Your task to perform on an android device: turn off notifications settings in the gmail app Image 0: 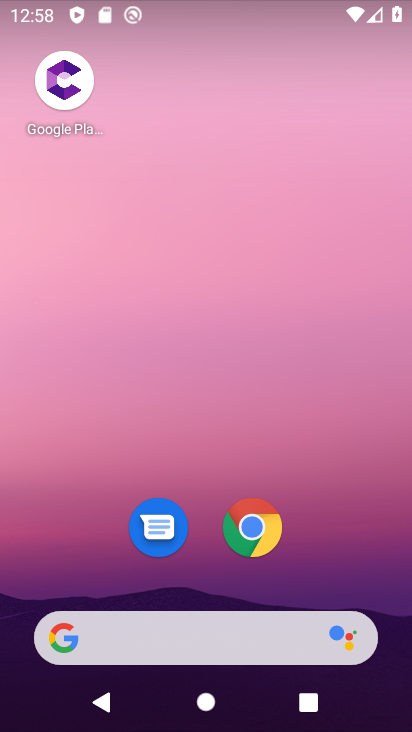
Step 0: drag from (207, 583) to (289, 68)
Your task to perform on an android device: turn off notifications settings in the gmail app Image 1: 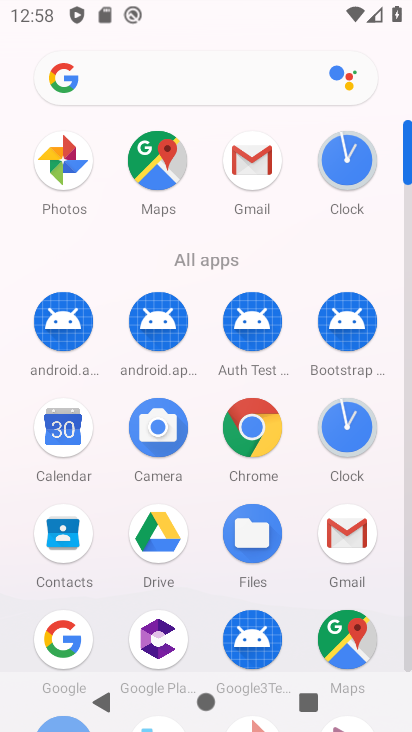
Step 1: click (342, 539)
Your task to perform on an android device: turn off notifications settings in the gmail app Image 2: 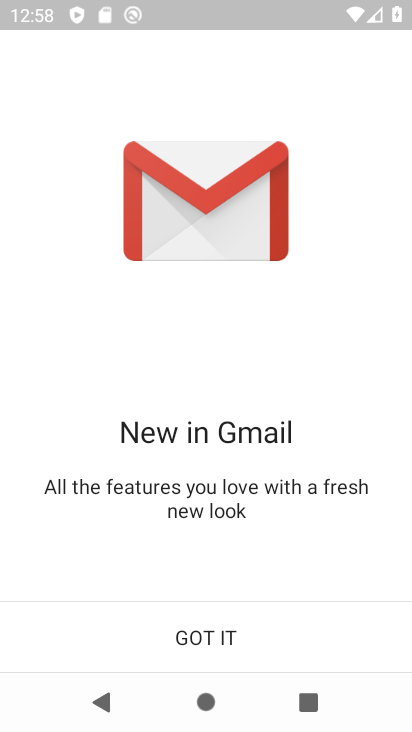
Step 2: click (229, 639)
Your task to perform on an android device: turn off notifications settings in the gmail app Image 3: 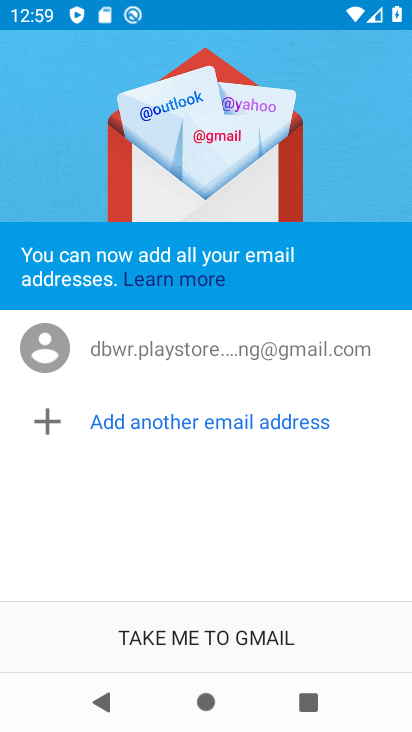
Step 3: click (219, 648)
Your task to perform on an android device: turn off notifications settings in the gmail app Image 4: 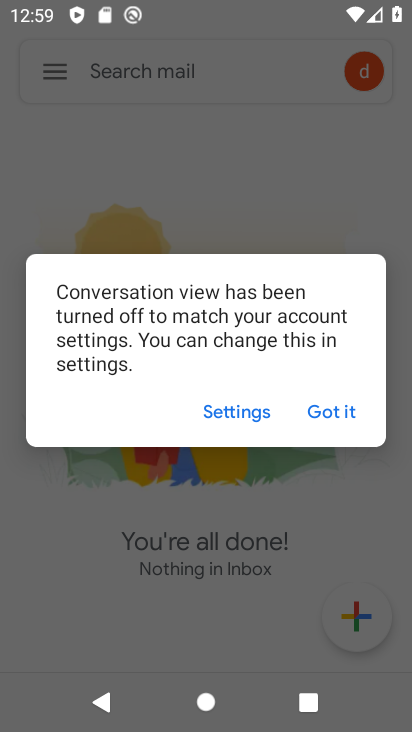
Step 4: click (238, 413)
Your task to perform on an android device: turn off notifications settings in the gmail app Image 5: 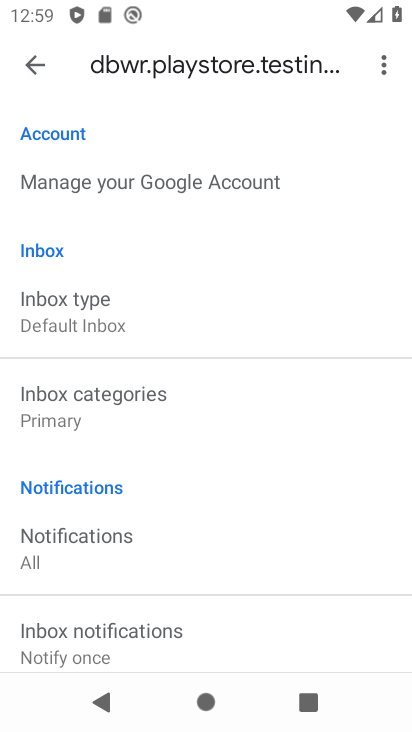
Step 5: click (33, 74)
Your task to perform on an android device: turn off notifications settings in the gmail app Image 6: 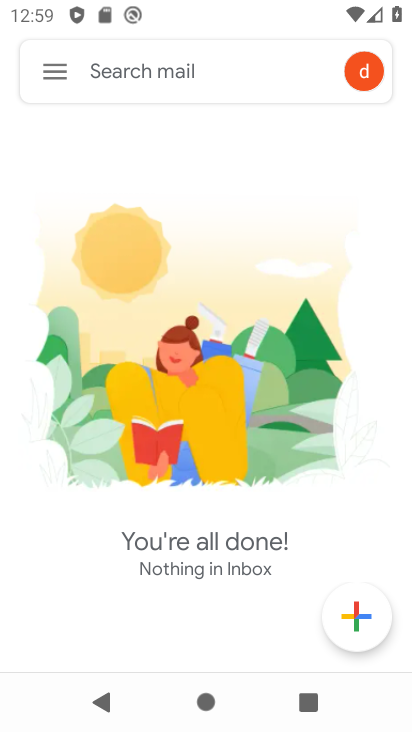
Step 6: click (50, 75)
Your task to perform on an android device: turn off notifications settings in the gmail app Image 7: 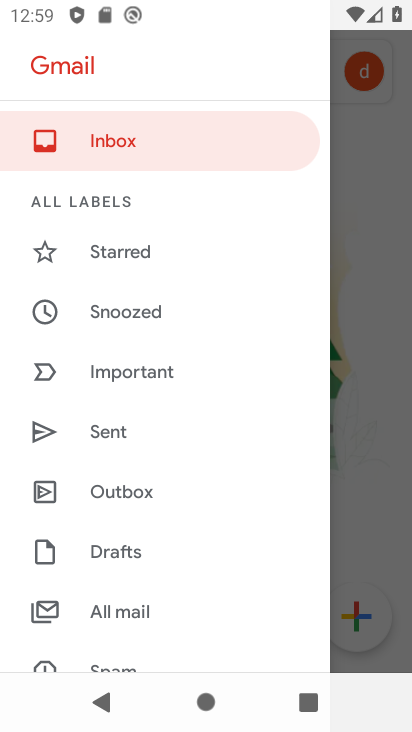
Step 7: drag from (147, 580) to (204, 17)
Your task to perform on an android device: turn off notifications settings in the gmail app Image 8: 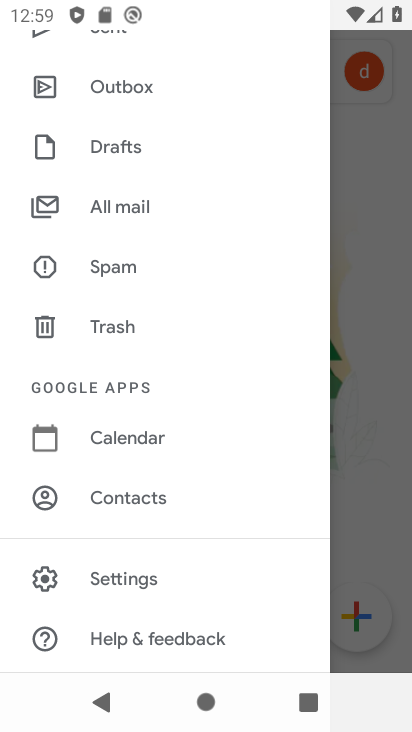
Step 8: click (120, 587)
Your task to perform on an android device: turn off notifications settings in the gmail app Image 9: 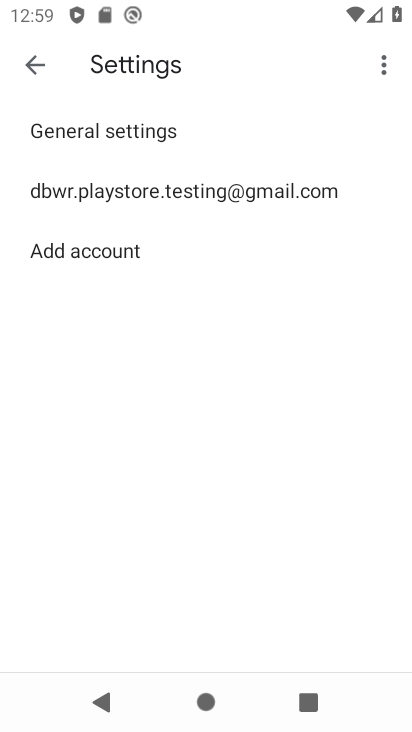
Step 9: click (142, 130)
Your task to perform on an android device: turn off notifications settings in the gmail app Image 10: 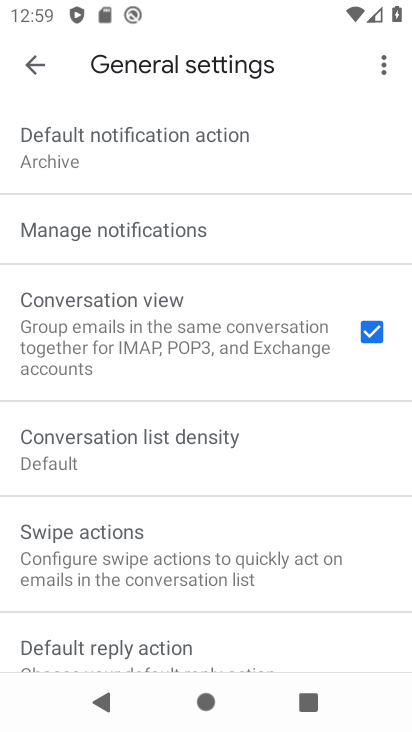
Step 10: click (141, 219)
Your task to perform on an android device: turn off notifications settings in the gmail app Image 11: 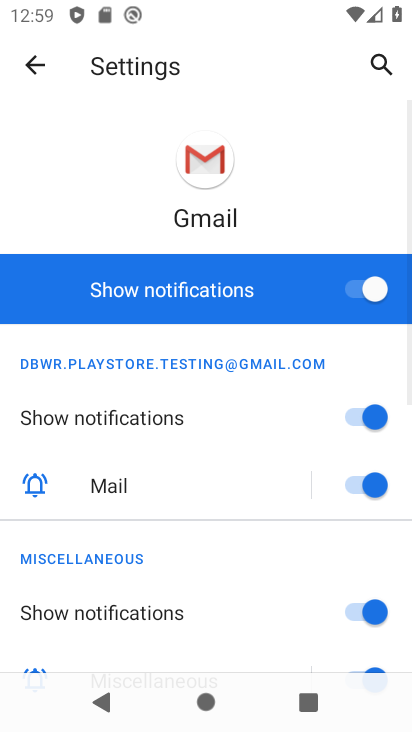
Step 11: click (353, 292)
Your task to perform on an android device: turn off notifications settings in the gmail app Image 12: 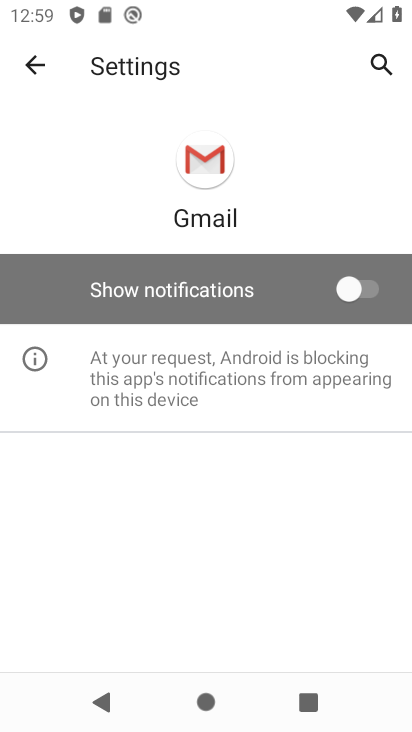
Step 12: task complete